Your task to perform on an android device: Show me the alarms in the clock app Image 0: 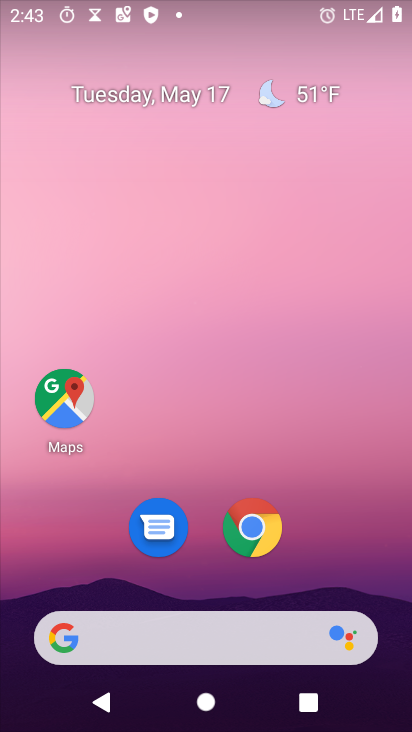
Step 0: drag from (332, 574) to (242, 62)
Your task to perform on an android device: Show me the alarms in the clock app Image 1: 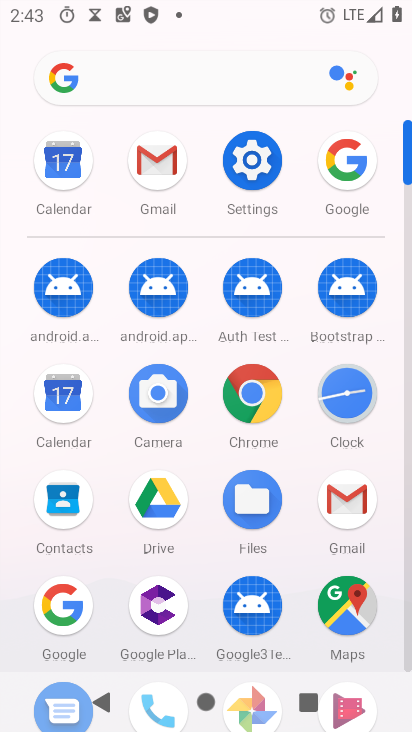
Step 1: click (349, 392)
Your task to perform on an android device: Show me the alarms in the clock app Image 2: 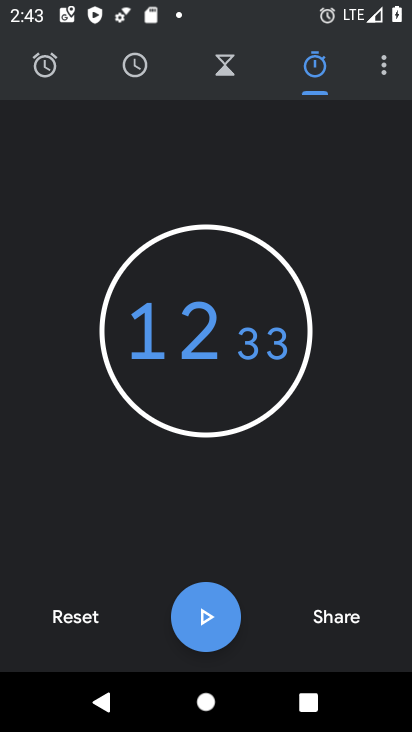
Step 2: click (46, 68)
Your task to perform on an android device: Show me the alarms in the clock app Image 3: 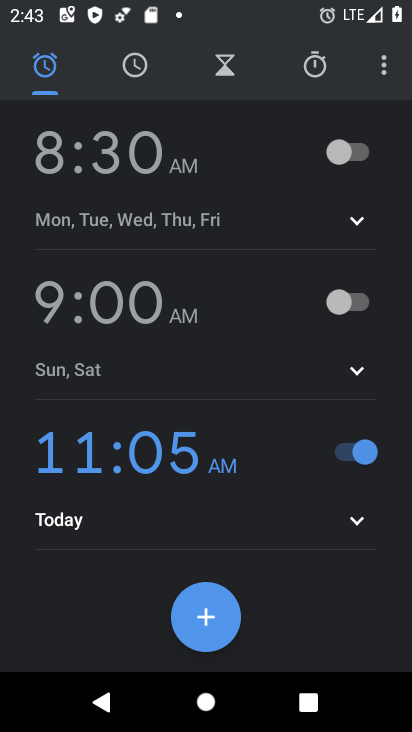
Step 3: task complete